Your task to perform on an android device: Turn off the flashlight Image 0: 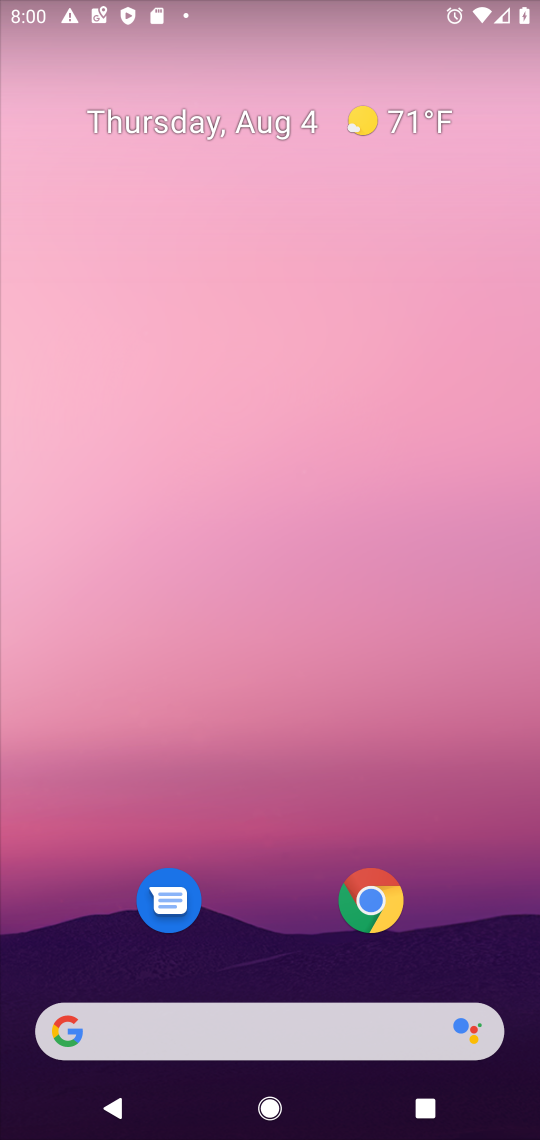
Step 0: drag from (226, 1033) to (297, 209)
Your task to perform on an android device: Turn off the flashlight Image 1: 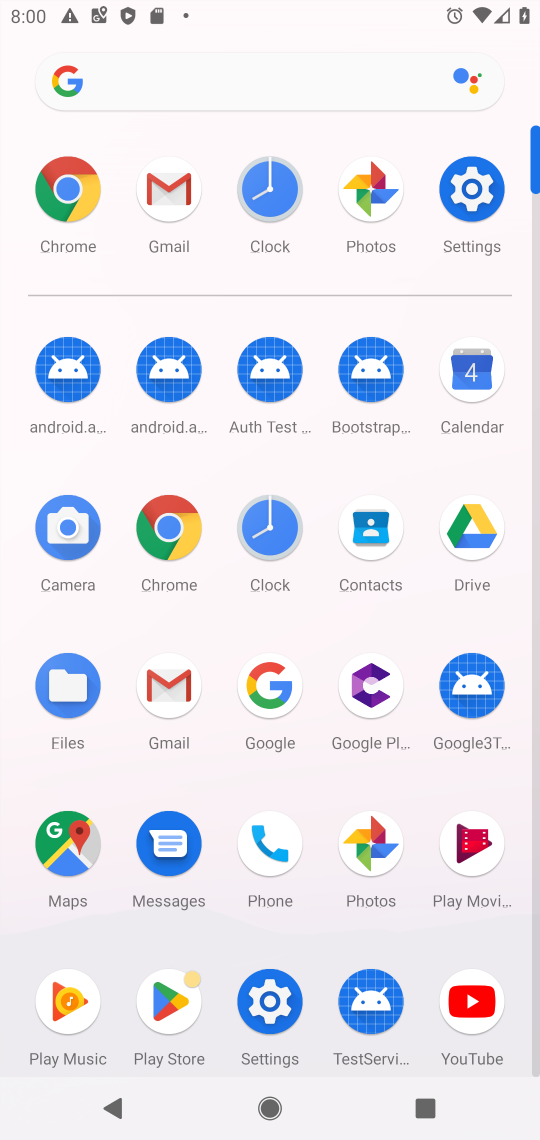
Step 1: click (470, 188)
Your task to perform on an android device: Turn off the flashlight Image 2: 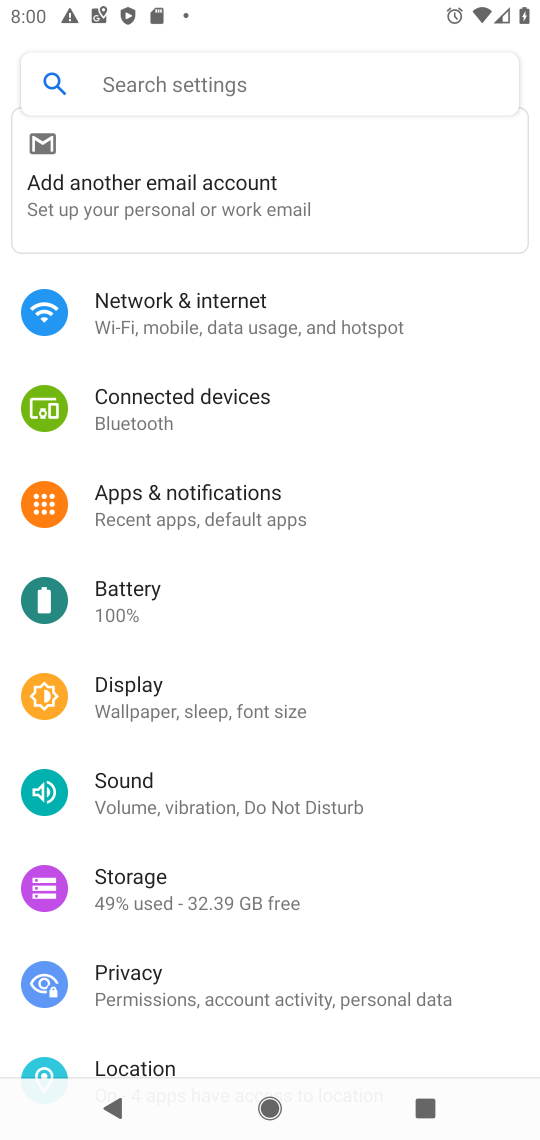
Step 2: click (211, 508)
Your task to perform on an android device: Turn off the flashlight Image 3: 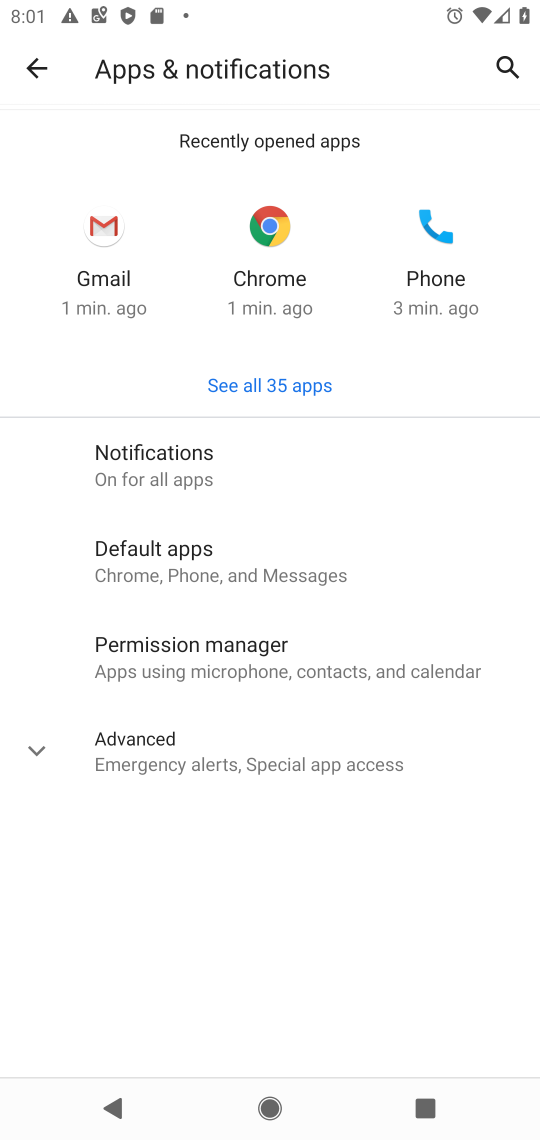
Step 3: press back button
Your task to perform on an android device: Turn off the flashlight Image 4: 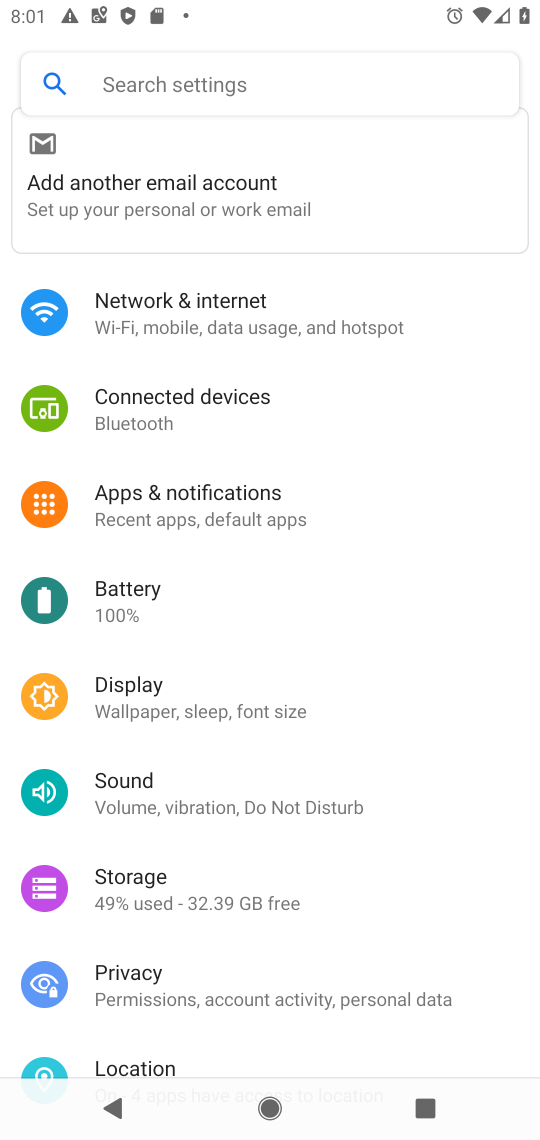
Step 4: click (228, 83)
Your task to perform on an android device: Turn off the flashlight Image 5: 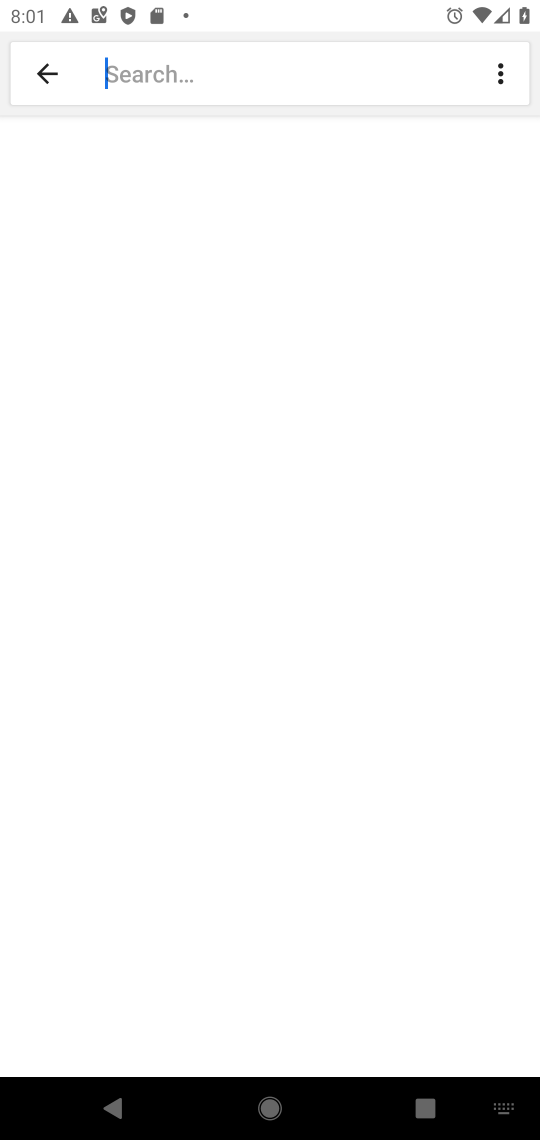
Step 5: type "flashlight"
Your task to perform on an android device: Turn off the flashlight Image 6: 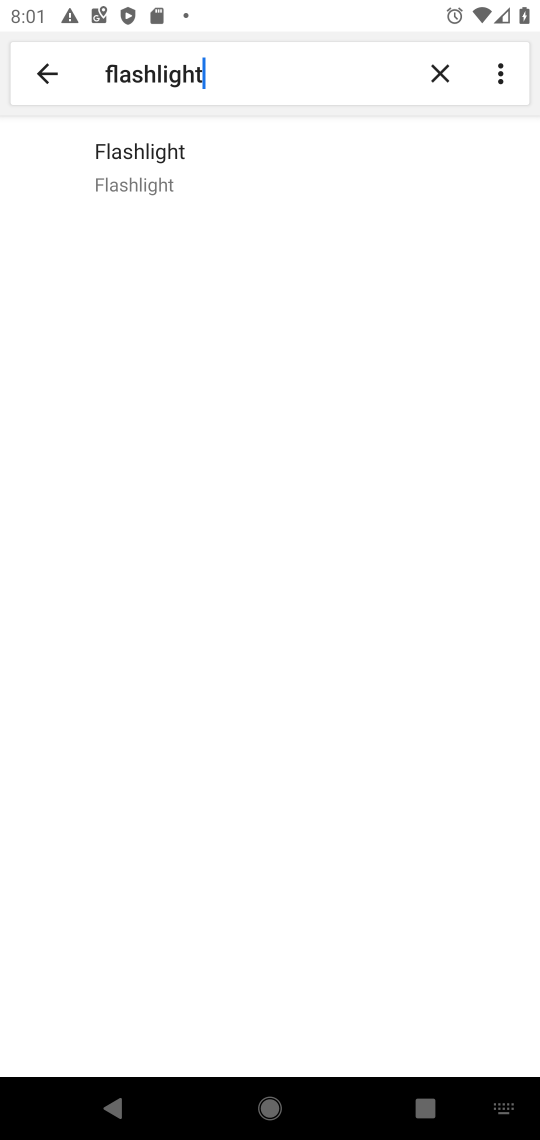
Step 6: click (164, 155)
Your task to perform on an android device: Turn off the flashlight Image 7: 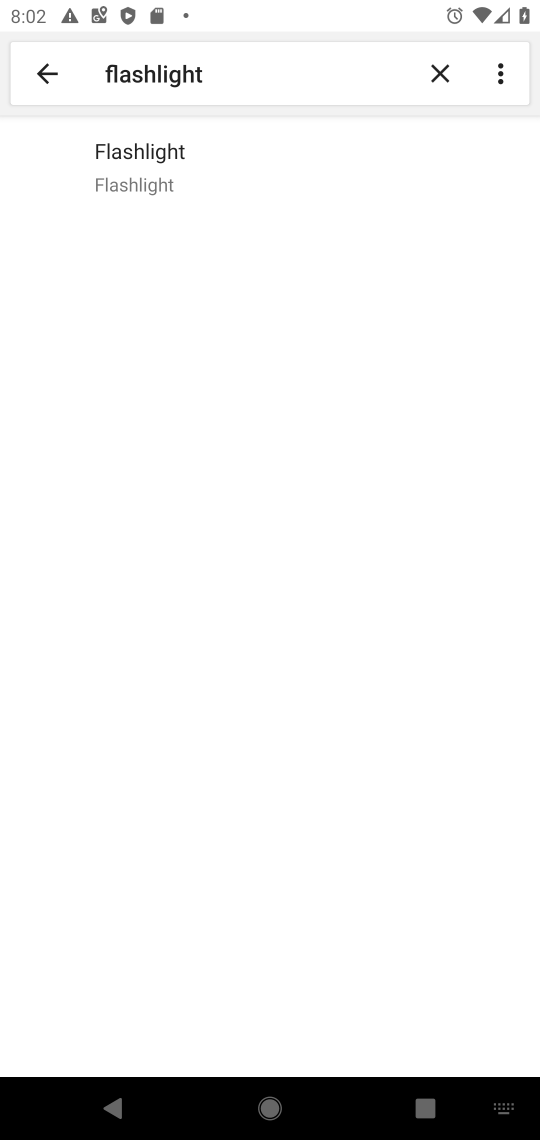
Step 7: task complete